Your task to perform on an android device: Open the web browser Image 0: 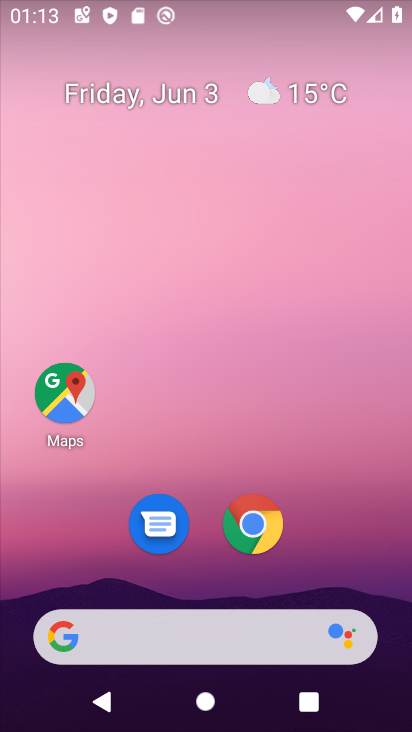
Step 0: click (282, 638)
Your task to perform on an android device: Open the web browser Image 1: 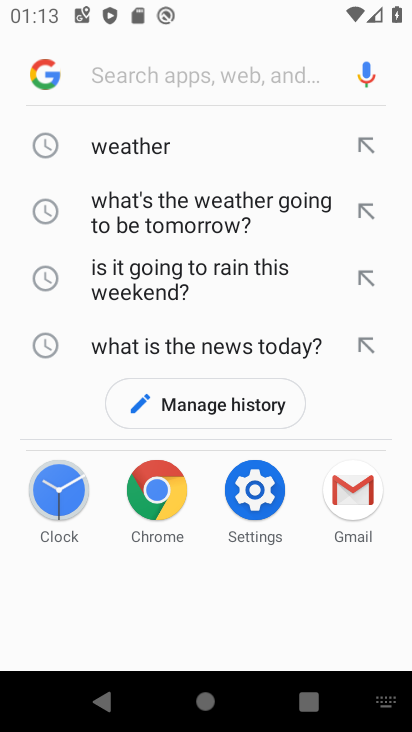
Step 1: task complete